Your task to perform on an android device: Go to Amazon Image 0: 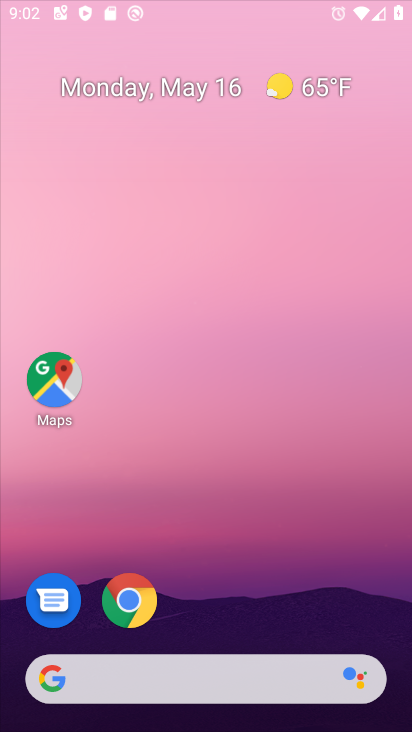
Step 0: click (308, 74)
Your task to perform on an android device: Go to Amazon Image 1: 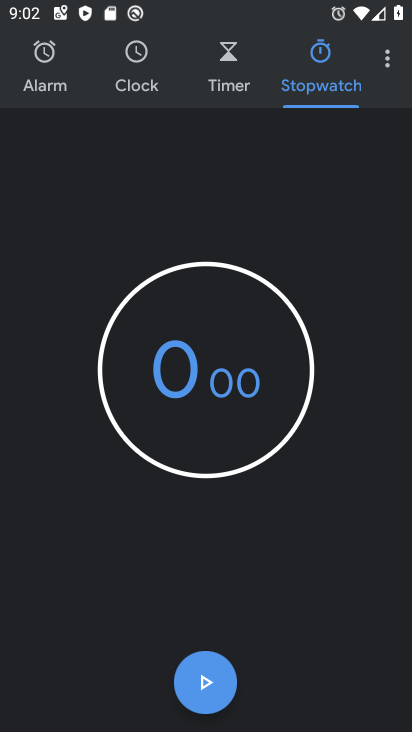
Step 1: click (268, 525)
Your task to perform on an android device: Go to Amazon Image 2: 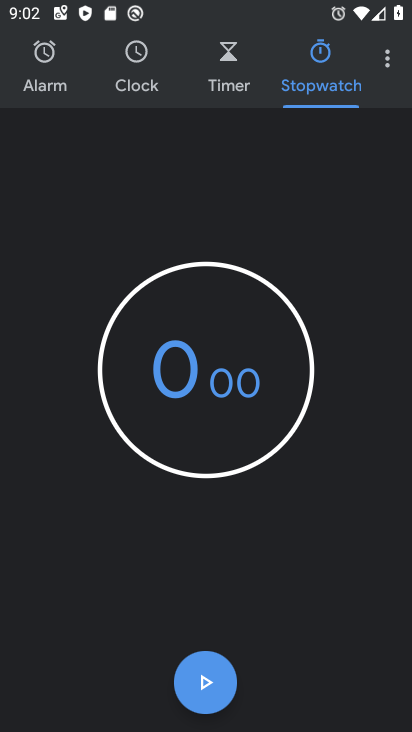
Step 2: click (244, 70)
Your task to perform on an android device: Go to Amazon Image 3: 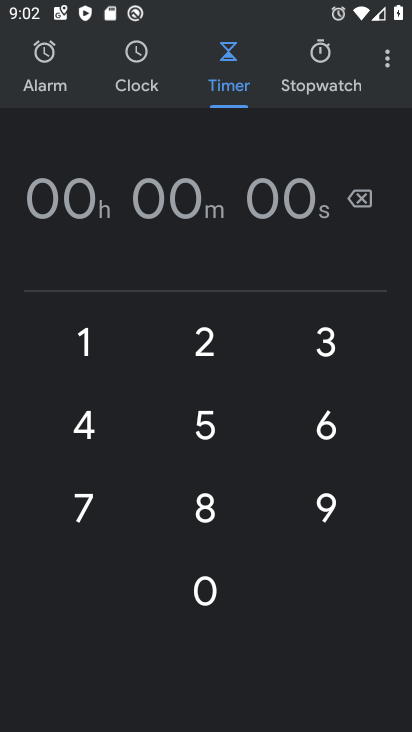
Step 3: click (342, 46)
Your task to perform on an android device: Go to Amazon Image 4: 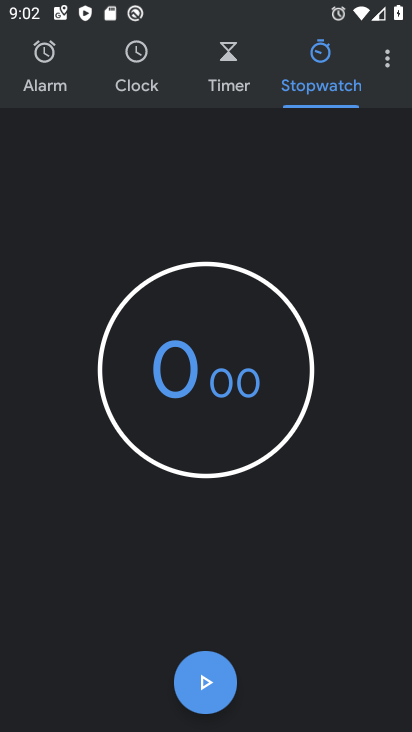
Step 4: click (349, 63)
Your task to perform on an android device: Go to Amazon Image 5: 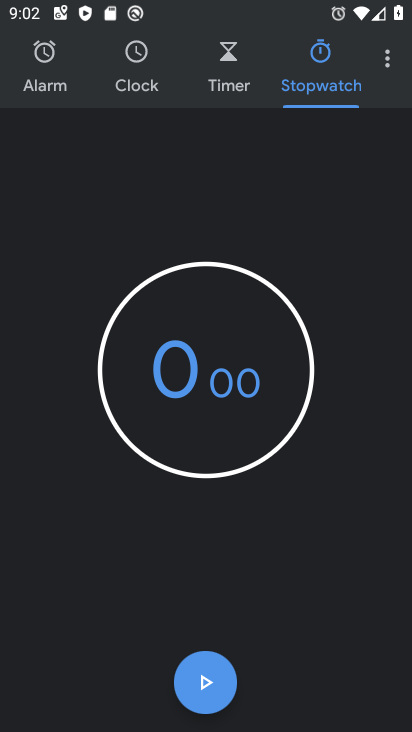
Step 5: click (30, 73)
Your task to perform on an android device: Go to Amazon Image 6: 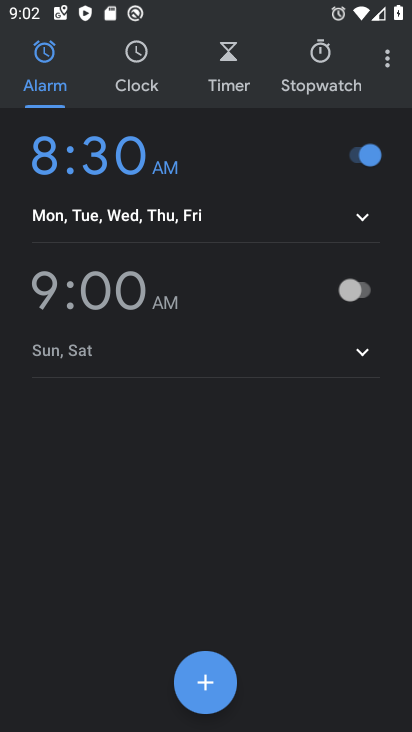
Step 6: click (137, 57)
Your task to perform on an android device: Go to Amazon Image 7: 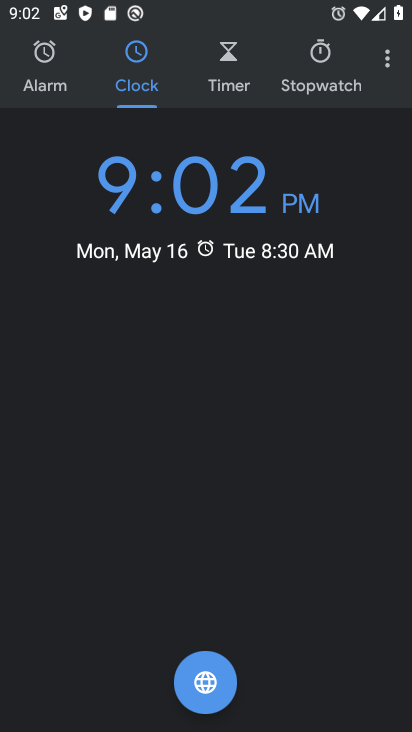
Step 7: click (236, 55)
Your task to perform on an android device: Go to Amazon Image 8: 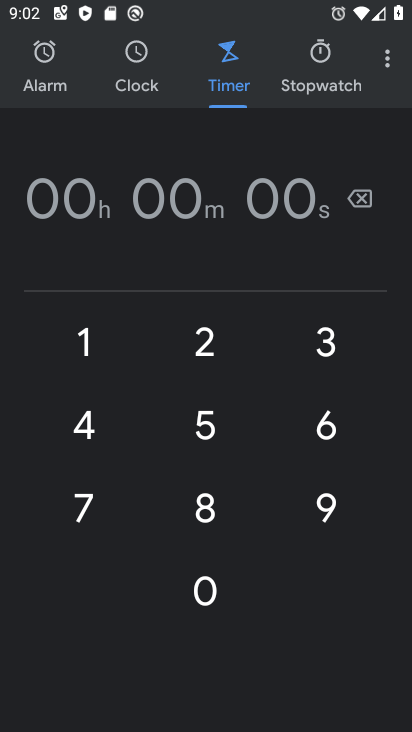
Step 8: click (334, 49)
Your task to perform on an android device: Go to Amazon Image 9: 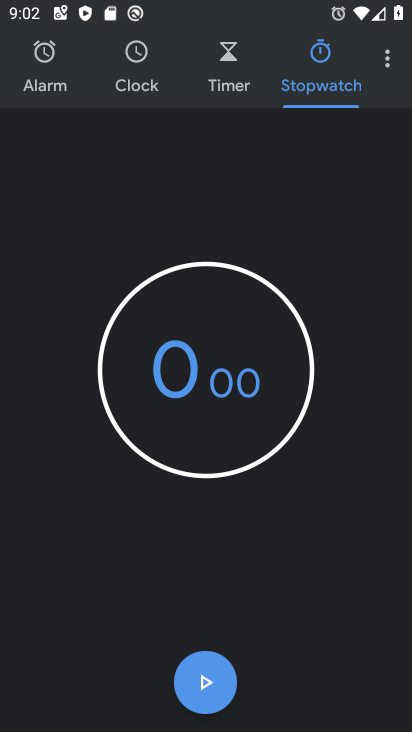
Step 9: press home button
Your task to perform on an android device: Go to Amazon Image 10: 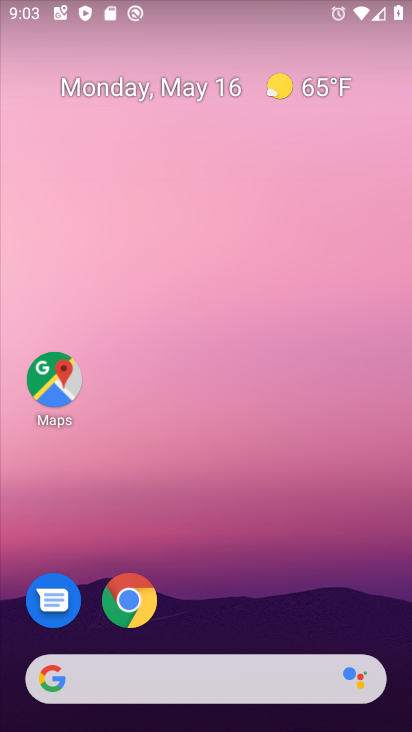
Step 10: drag from (215, 646) to (328, 63)
Your task to perform on an android device: Go to Amazon Image 11: 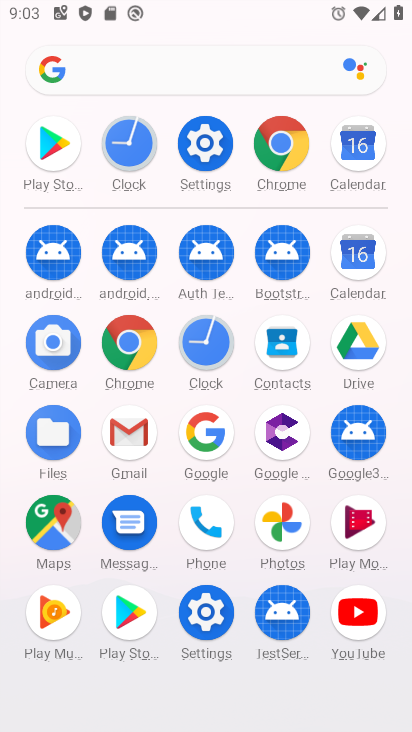
Step 11: click (280, 137)
Your task to perform on an android device: Go to Amazon Image 12: 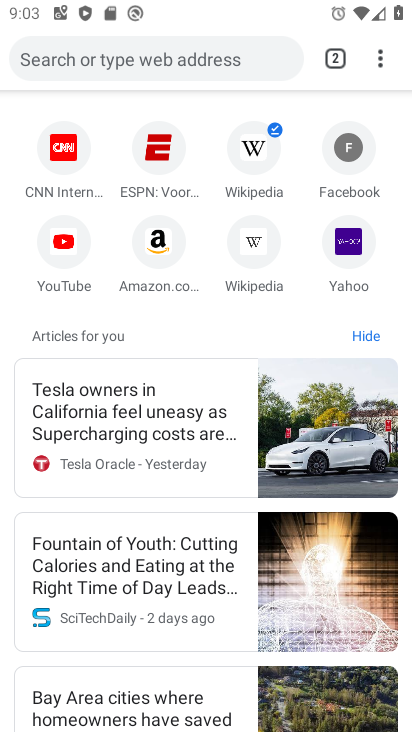
Step 12: drag from (182, 575) to (268, 49)
Your task to perform on an android device: Go to Amazon Image 13: 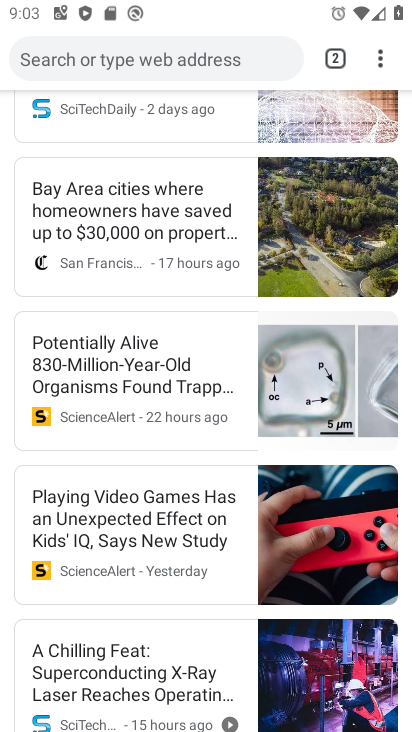
Step 13: drag from (221, 147) to (289, 690)
Your task to perform on an android device: Go to Amazon Image 14: 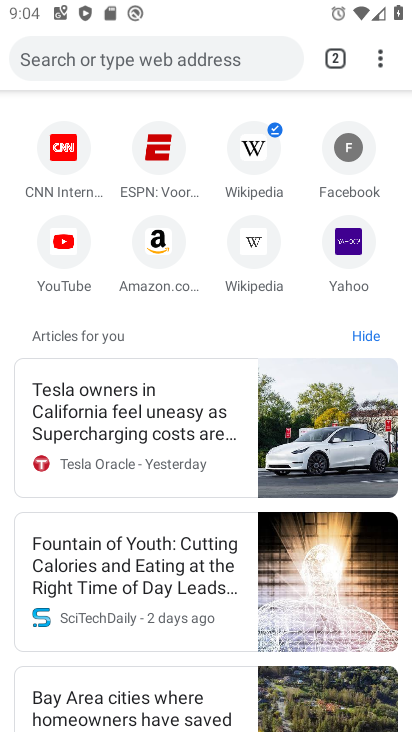
Step 14: click (151, 238)
Your task to perform on an android device: Go to Amazon Image 15: 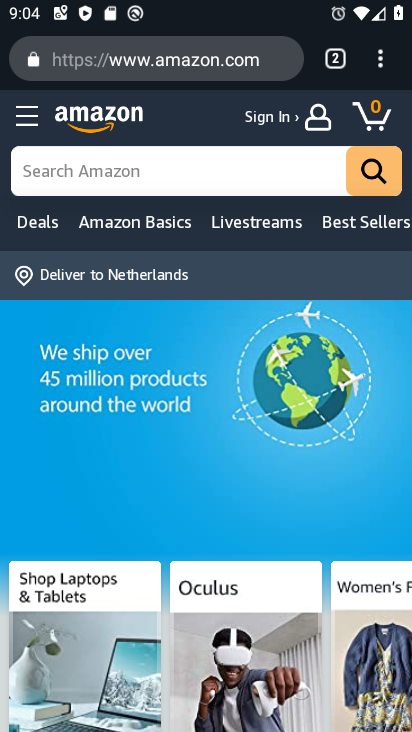
Step 15: task complete